Your task to perform on an android device: stop showing notifications on the lock screen Image 0: 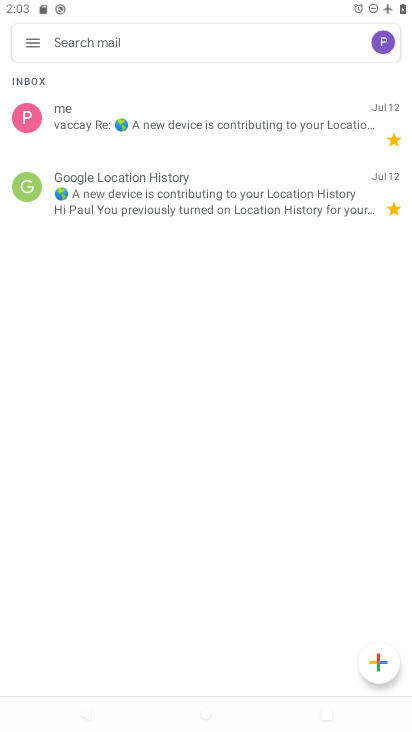
Step 0: press home button
Your task to perform on an android device: stop showing notifications on the lock screen Image 1: 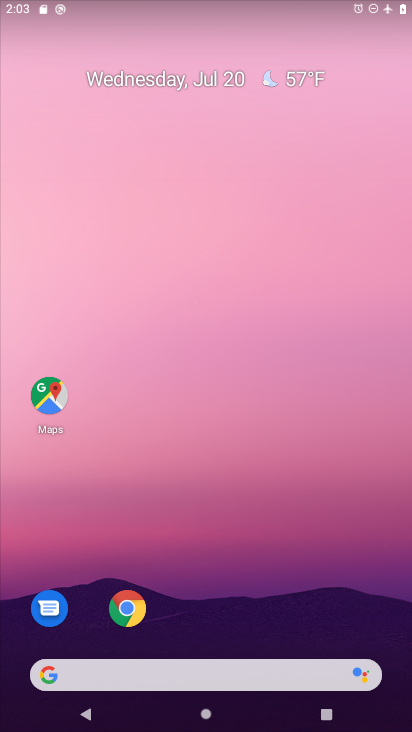
Step 1: drag from (258, 679) to (407, 22)
Your task to perform on an android device: stop showing notifications on the lock screen Image 2: 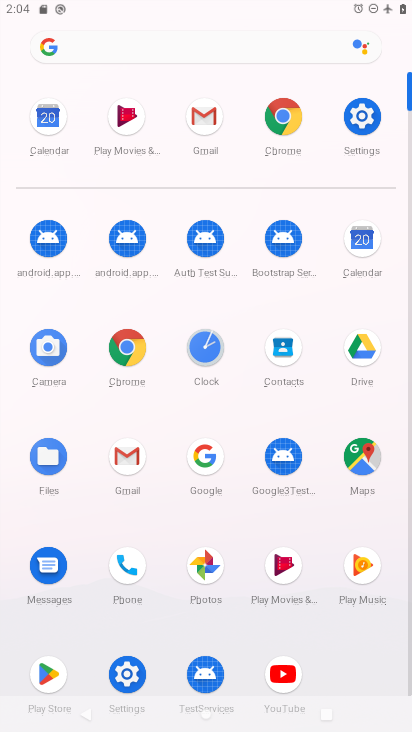
Step 2: click (134, 675)
Your task to perform on an android device: stop showing notifications on the lock screen Image 3: 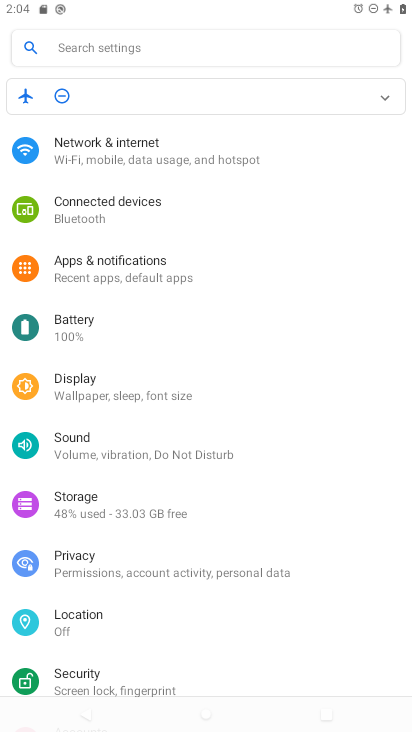
Step 3: click (177, 268)
Your task to perform on an android device: stop showing notifications on the lock screen Image 4: 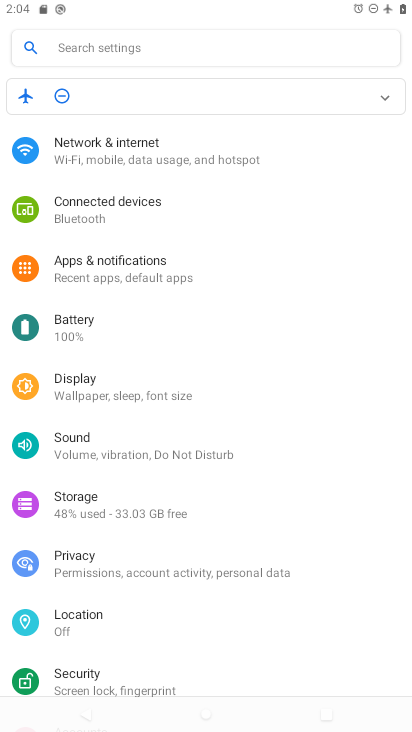
Step 4: click (177, 268)
Your task to perform on an android device: stop showing notifications on the lock screen Image 5: 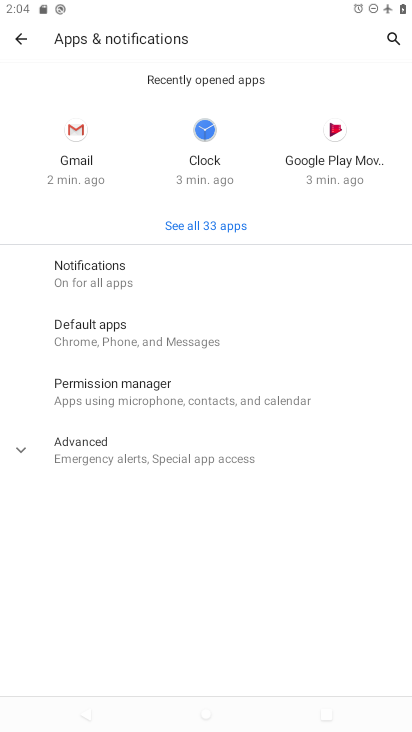
Step 5: click (142, 281)
Your task to perform on an android device: stop showing notifications on the lock screen Image 6: 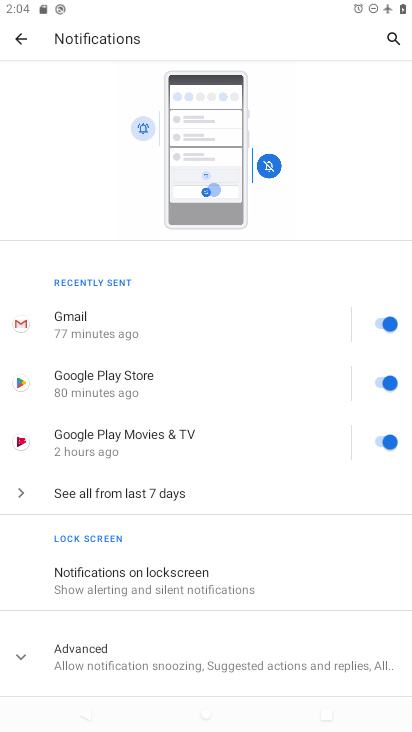
Step 6: click (174, 576)
Your task to perform on an android device: stop showing notifications on the lock screen Image 7: 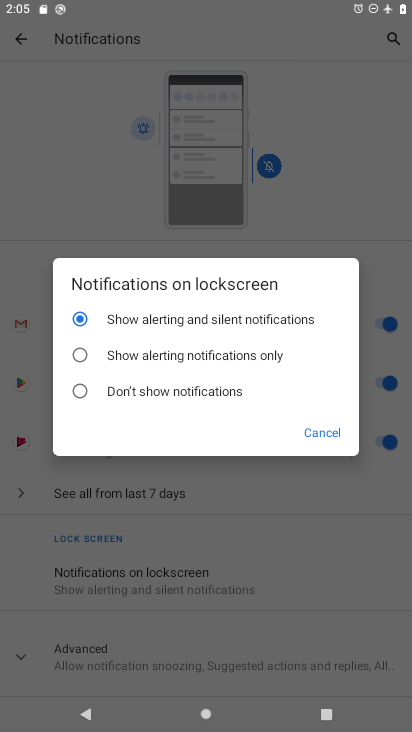
Step 7: click (149, 388)
Your task to perform on an android device: stop showing notifications on the lock screen Image 8: 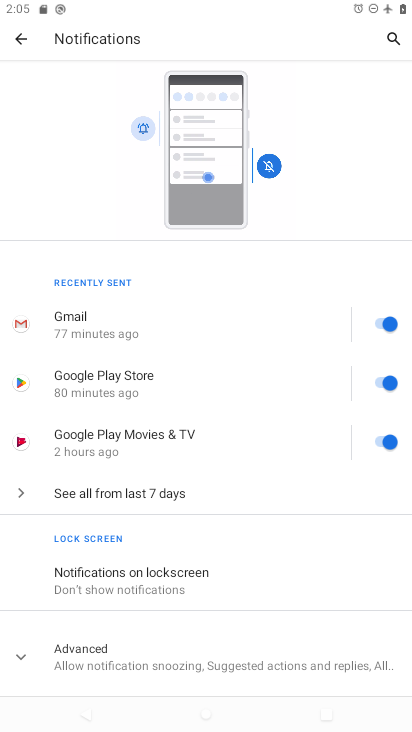
Step 8: task complete